Your task to perform on an android device: Open Google Maps and go to "Timeline" Image 0: 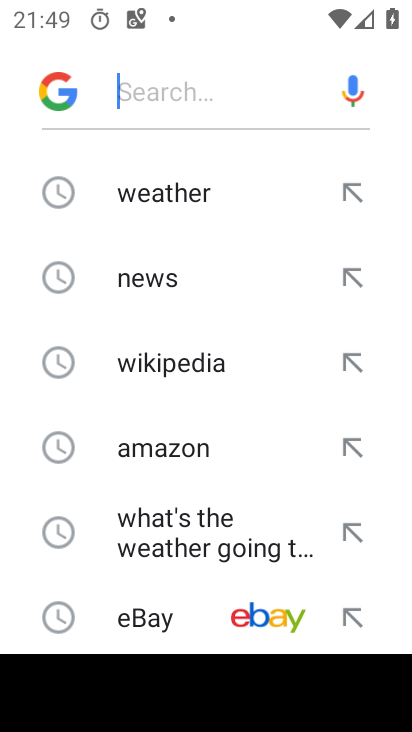
Step 0: press home button
Your task to perform on an android device: Open Google Maps and go to "Timeline" Image 1: 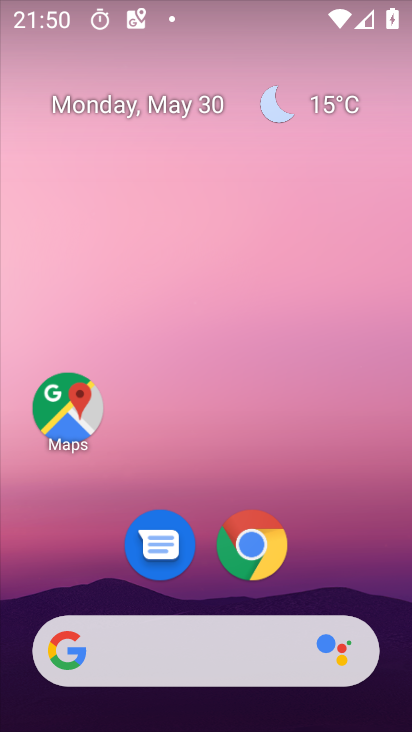
Step 1: click (86, 401)
Your task to perform on an android device: Open Google Maps and go to "Timeline" Image 2: 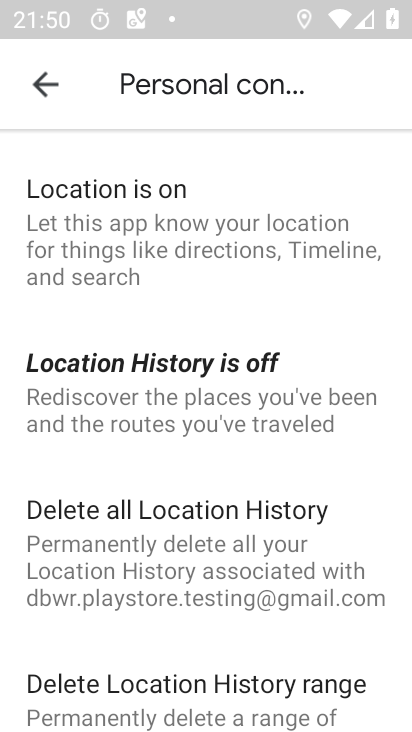
Step 2: click (38, 88)
Your task to perform on an android device: Open Google Maps and go to "Timeline" Image 3: 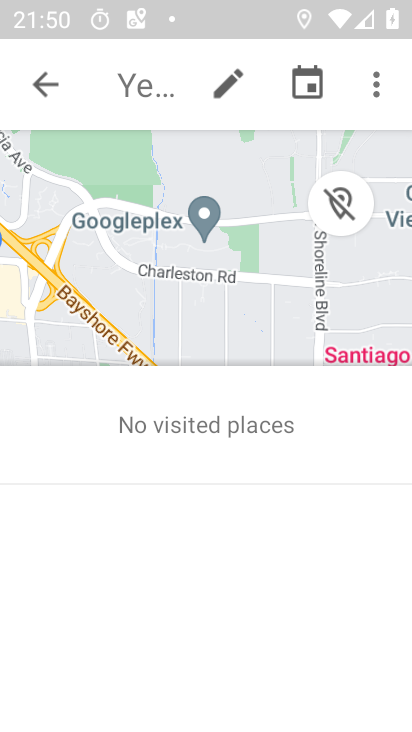
Step 3: task complete